Your task to perform on an android device: What's the weather? Image 0: 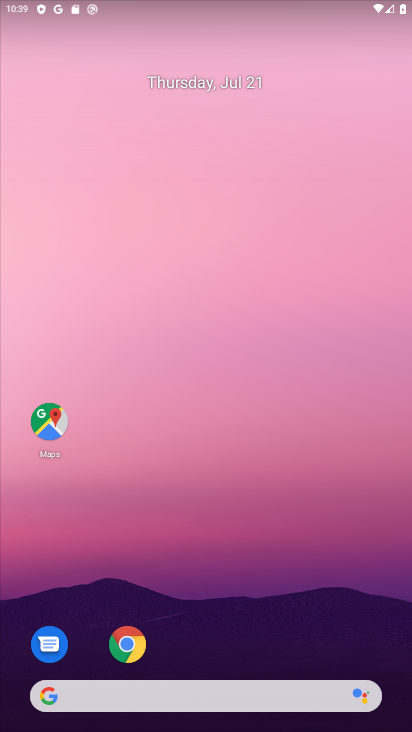
Step 0: drag from (241, 626) to (308, 9)
Your task to perform on an android device: What's the weather? Image 1: 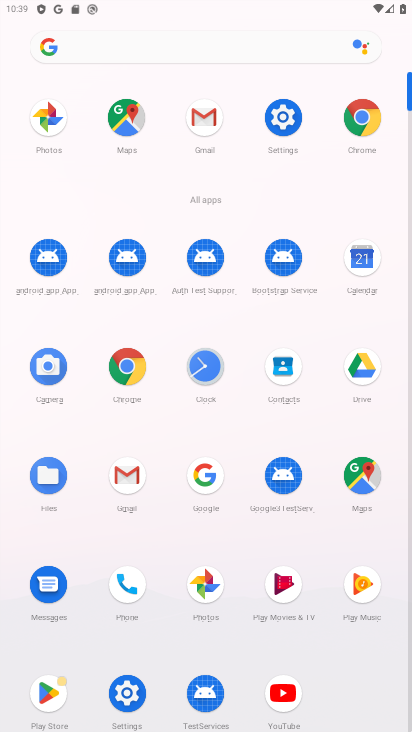
Step 1: click (371, 118)
Your task to perform on an android device: What's the weather? Image 2: 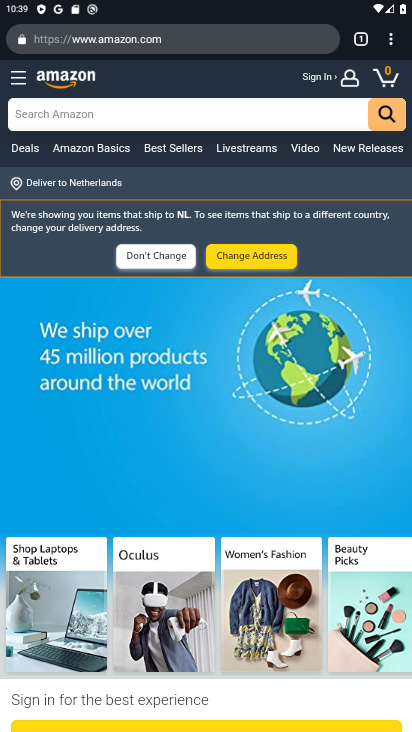
Step 2: click (220, 45)
Your task to perform on an android device: What's the weather? Image 3: 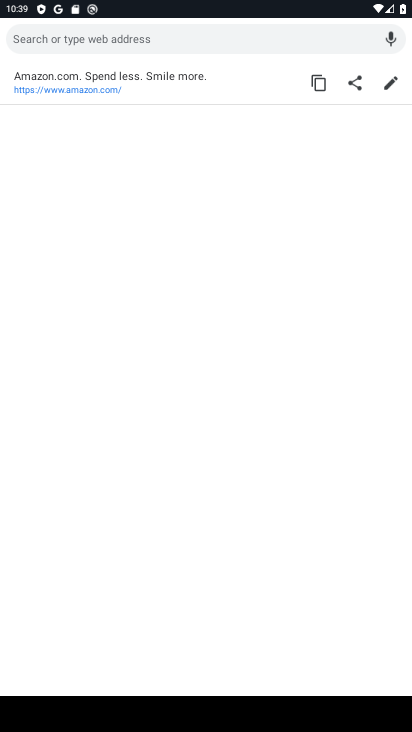
Step 3: type "What's the weather?"
Your task to perform on an android device: What's the weather? Image 4: 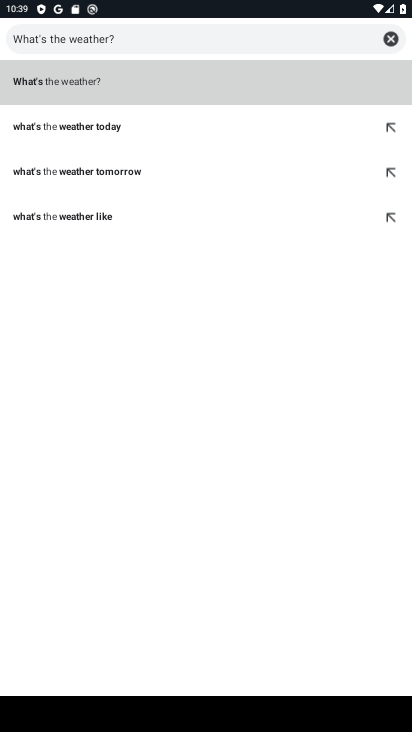
Step 4: click (256, 85)
Your task to perform on an android device: What's the weather? Image 5: 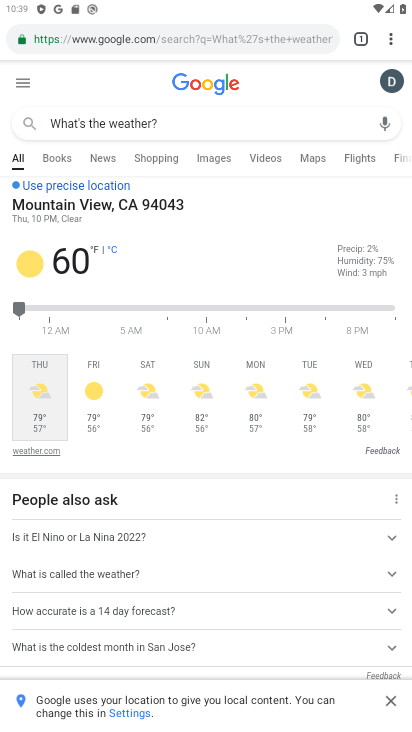
Step 5: task complete